Your task to perform on an android device: When is my next meeting? Image 0: 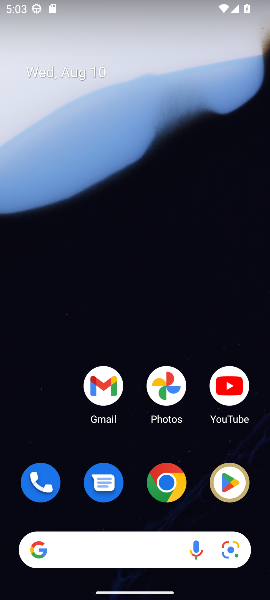
Step 0: drag from (61, 433) to (87, 32)
Your task to perform on an android device: When is my next meeting? Image 1: 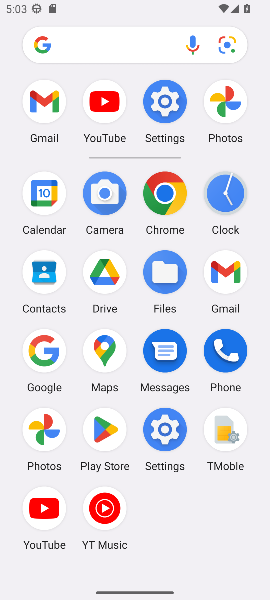
Step 1: click (47, 193)
Your task to perform on an android device: When is my next meeting? Image 2: 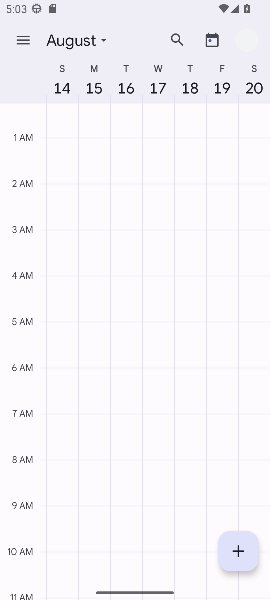
Step 2: drag from (56, 175) to (269, 207)
Your task to perform on an android device: When is my next meeting? Image 3: 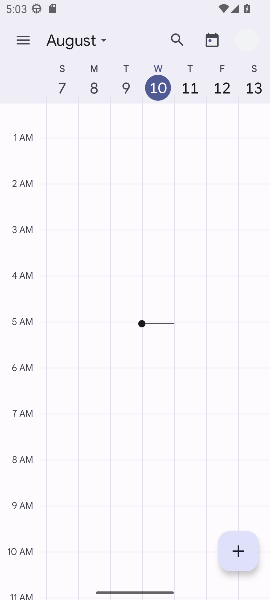
Step 3: click (157, 91)
Your task to perform on an android device: When is my next meeting? Image 4: 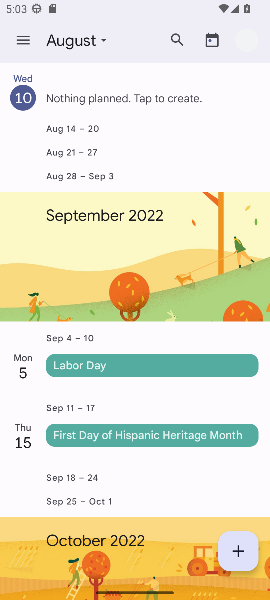
Step 4: task complete